Your task to perform on an android device: turn on the 24-hour format for clock Image 0: 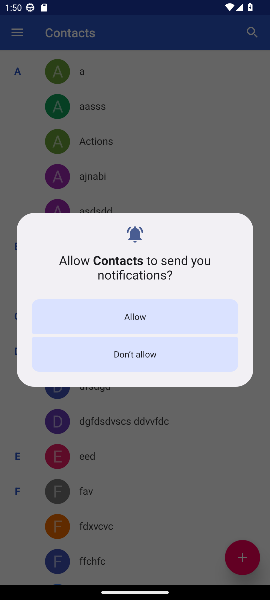
Step 0: press home button
Your task to perform on an android device: turn on the 24-hour format for clock Image 1: 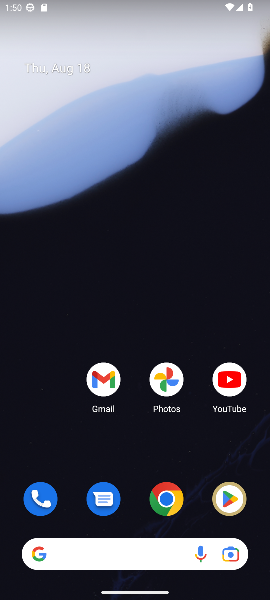
Step 1: drag from (132, 476) to (103, 77)
Your task to perform on an android device: turn on the 24-hour format for clock Image 2: 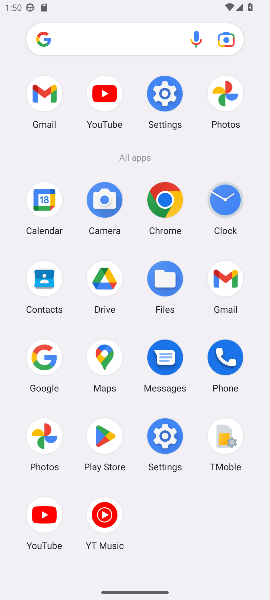
Step 2: click (229, 201)
Your task to perform on an android device: turn on the 24-hour format for clock Image 3: 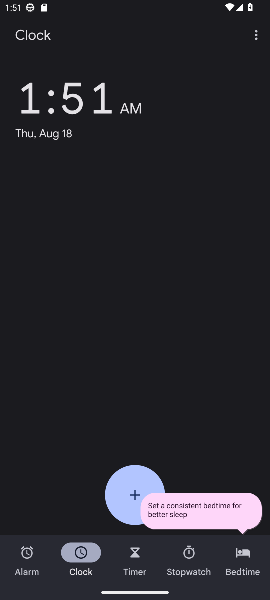
Step 3: click (252, 36)
Your task to perform on an android device: turn on the 24-hour format for clock Image 4: 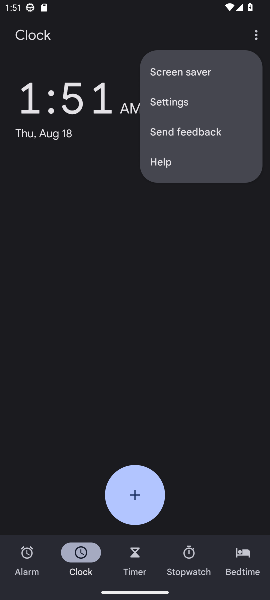
Step 4: click (180, 99)
Your task to perform on an android device: turn on the 24-hour format for clock Image 5: 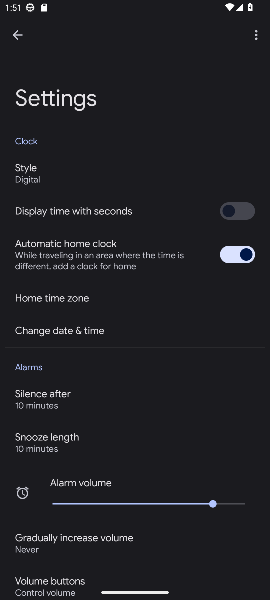
Step 5: click (88, 331)
Your task to perform on an android device: turn on the 24-hour format for clock Image 6: 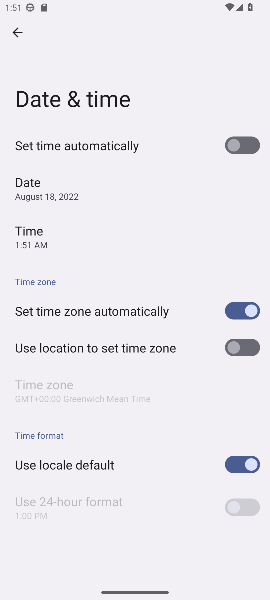
Step 6: click (243, 465)
Your task to perform on an android device: turn on the 24-hour format for clock Image 7: 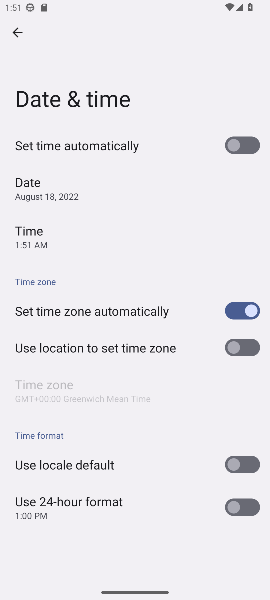
Step 7: click (234, 506)
Your task to perform on an android device: turn on the 24-hour format for clock Image 8: 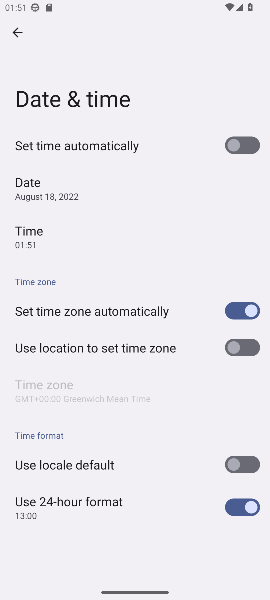
Step 8: task complete